Your task to perform on an android device: Do I have any events today? Image 0: 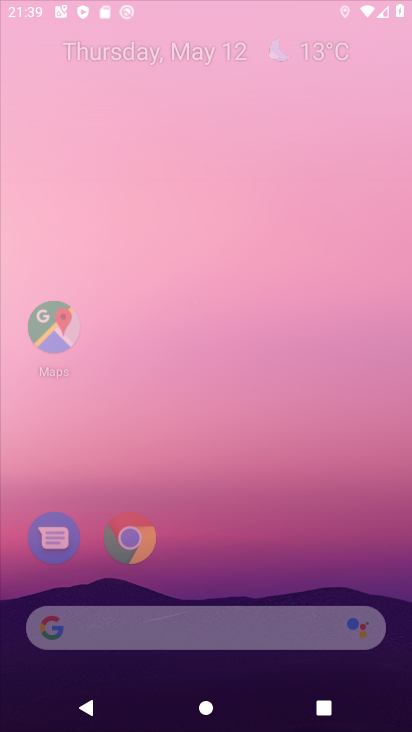
Step 0: press home button
Your task to perform on an android device: Do I have any events today? Image 1: 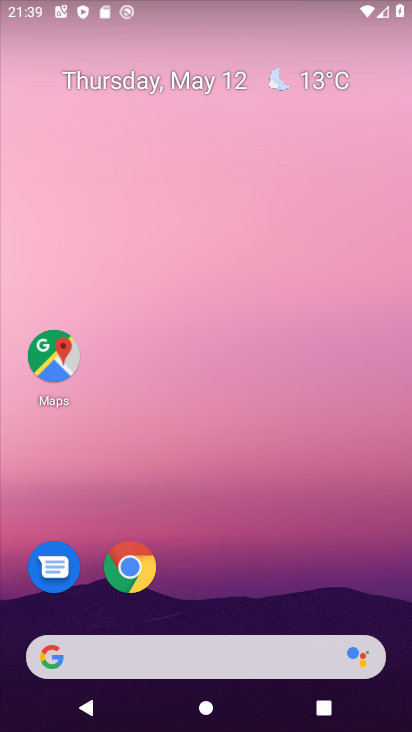
Step 1: drag from (205, 599) to (177, 17)
Your task to perform on an android device: Do I have any events today? Image 2: 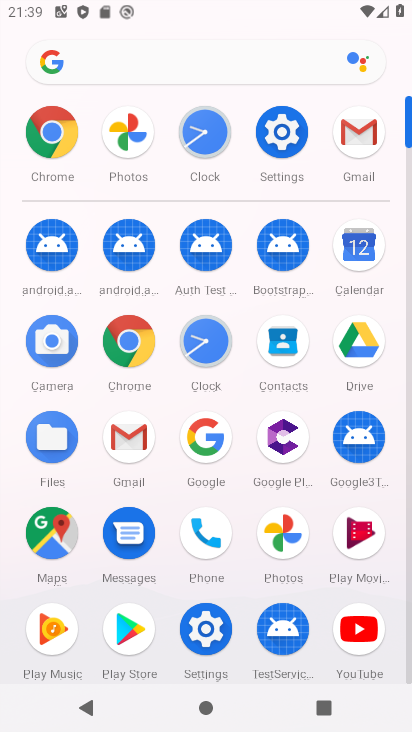
Step 2: click (355, 242)
Your task to perform on an android device: Do I have any events today? Image 3: 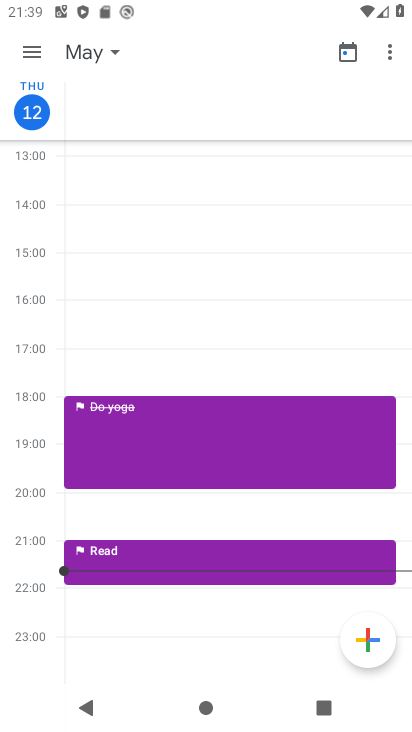
Step 3: task complete